Your task to perform on an android device: Open battery settings Image 0: 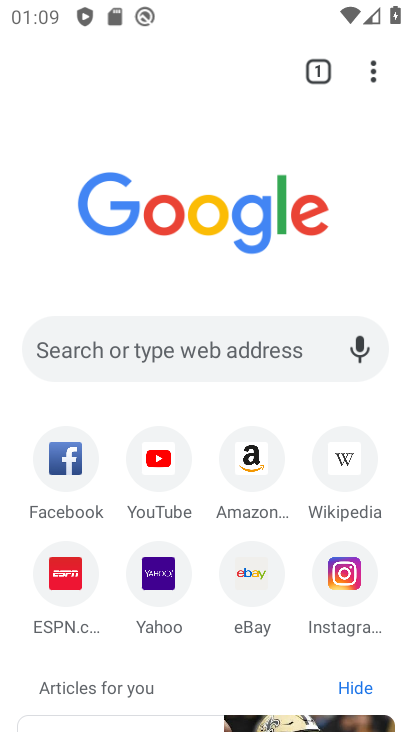
Step 0: press home button
Your task to perform on an android device: Open battery settings Image 1: 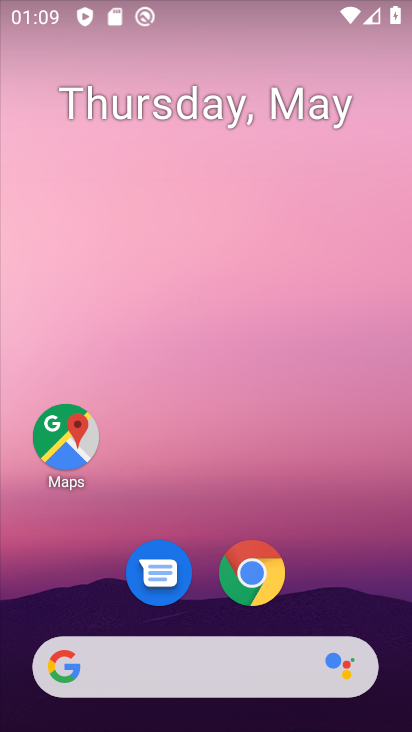
Step 1: drag from (356, 605) to (309, 221)
Your task to perform on an android device: Open battery settings Image 2: 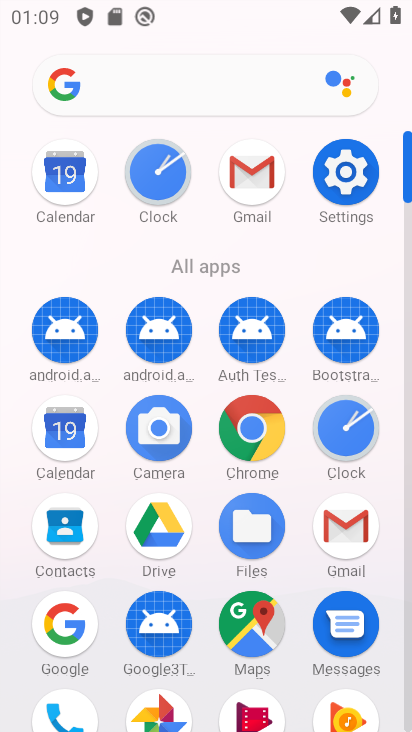
Step 2: click (348, 211)
Your task to perform on an android device: Open battery settings Image 3: 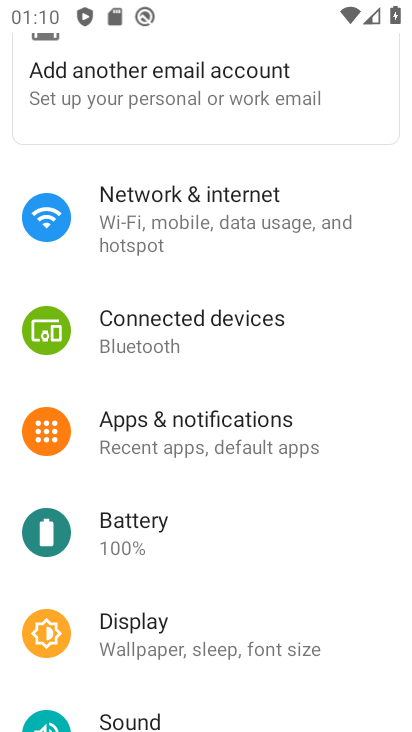
Step 3: drag from (118, 560) to (185, 229)
Your task to perform on an android device: Open battery settings Image 4: 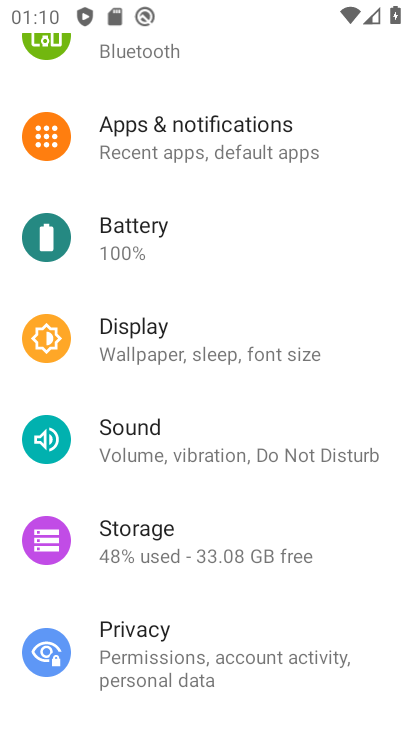
Step 4: drag from (133, 642) to (178, 425)
Your task to perform on an android device: Open battery settings Image 5: 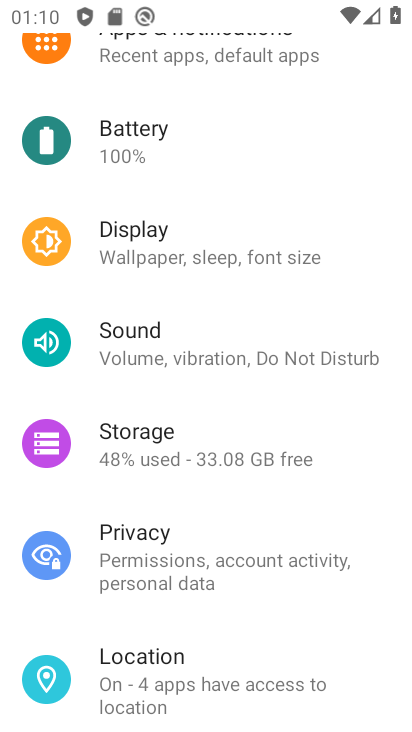
Step 5: drag from (178, 674) to (184, 620)
Your task to perform on an android device: Open battery settings Image 6: 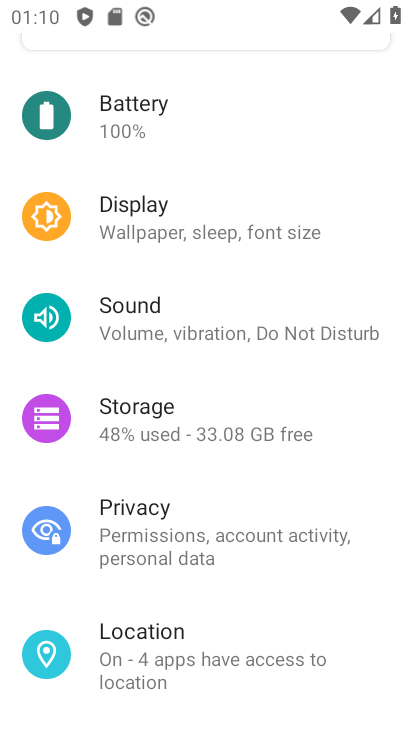
Step 6: click (171, 130)
Your task to perform on an android device: Open battery settings Image 7: 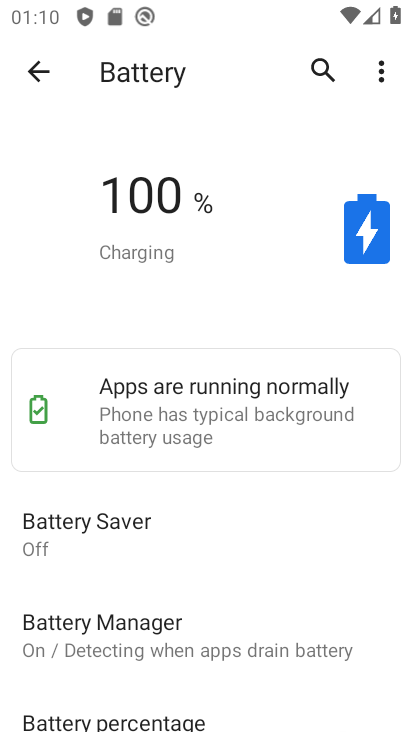
Step 7: task complete